Your task to perform on an android device: turn off airplane mode Image 0: 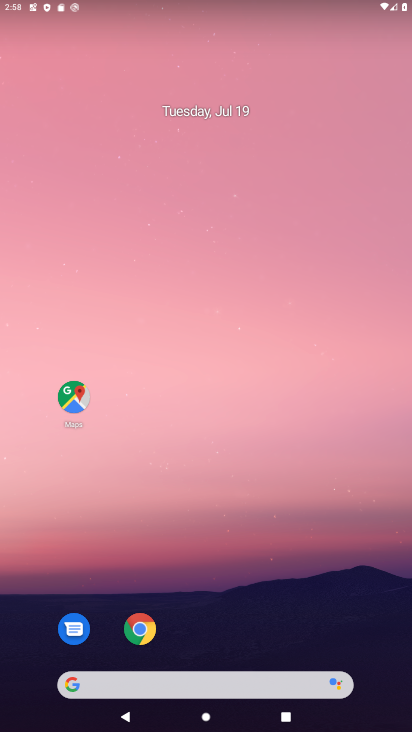
Step 0: drag from (219, 679) to (183, 139)
Your task to perform on an android device: turn off airplane mode Image 1: 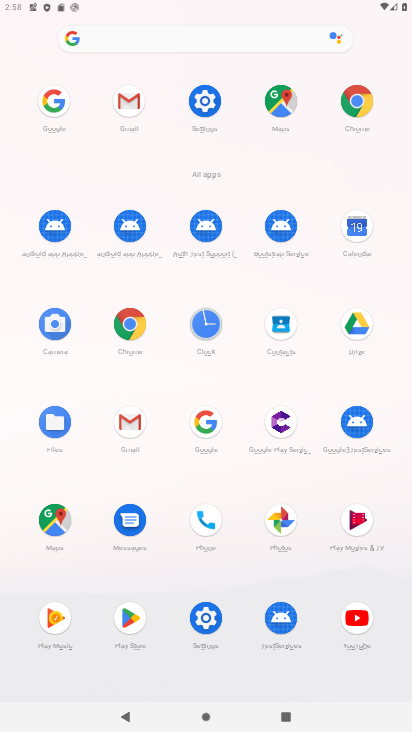
Step 1: click (203, 116)
Your task to perform on an android device: turn off airplane mode Image 2: 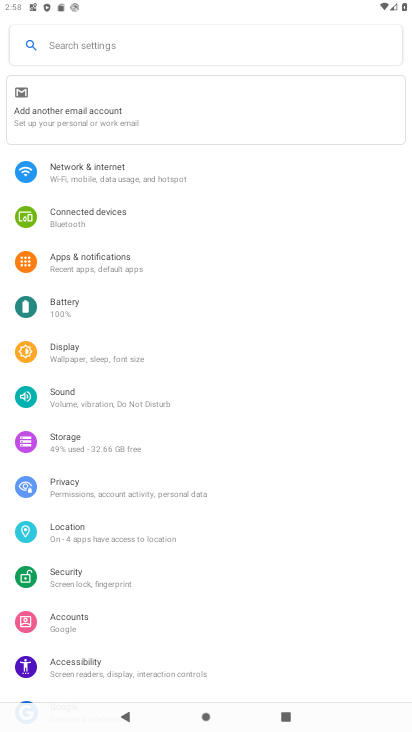
Step 2: click (139, 168)
Your task to perform on an android device: turn off airplane mode Image 3: 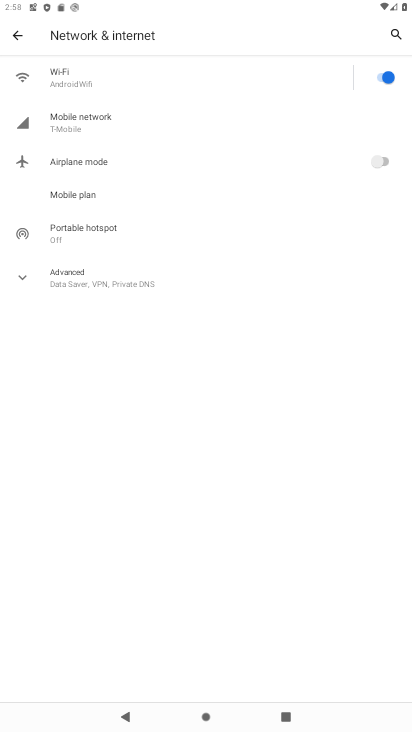
Step 3: task complete